Your task to perform on an android device: Go to calendar. Show me events next week Image 0: 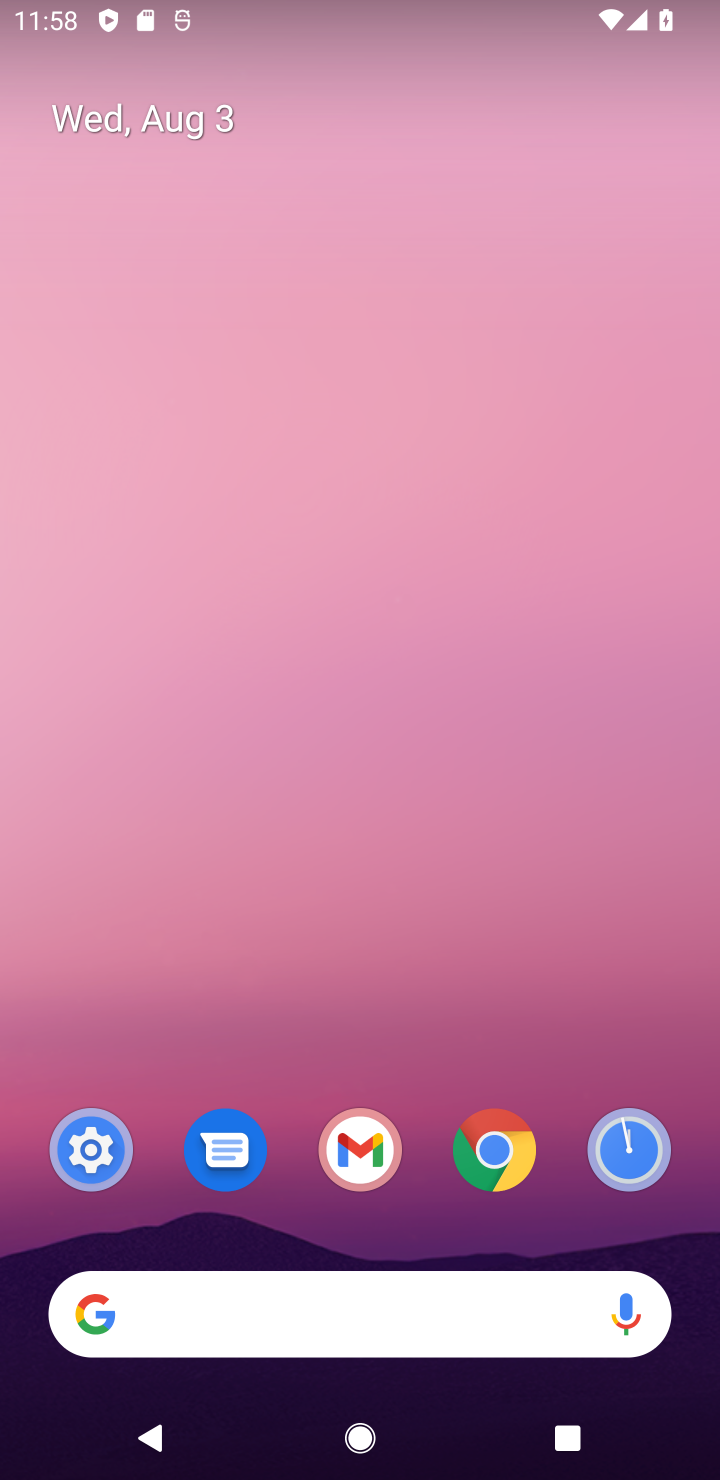
Step 0: press home button
Your task to perform on an android device: Go to calendar. Show me events next week Image 1: 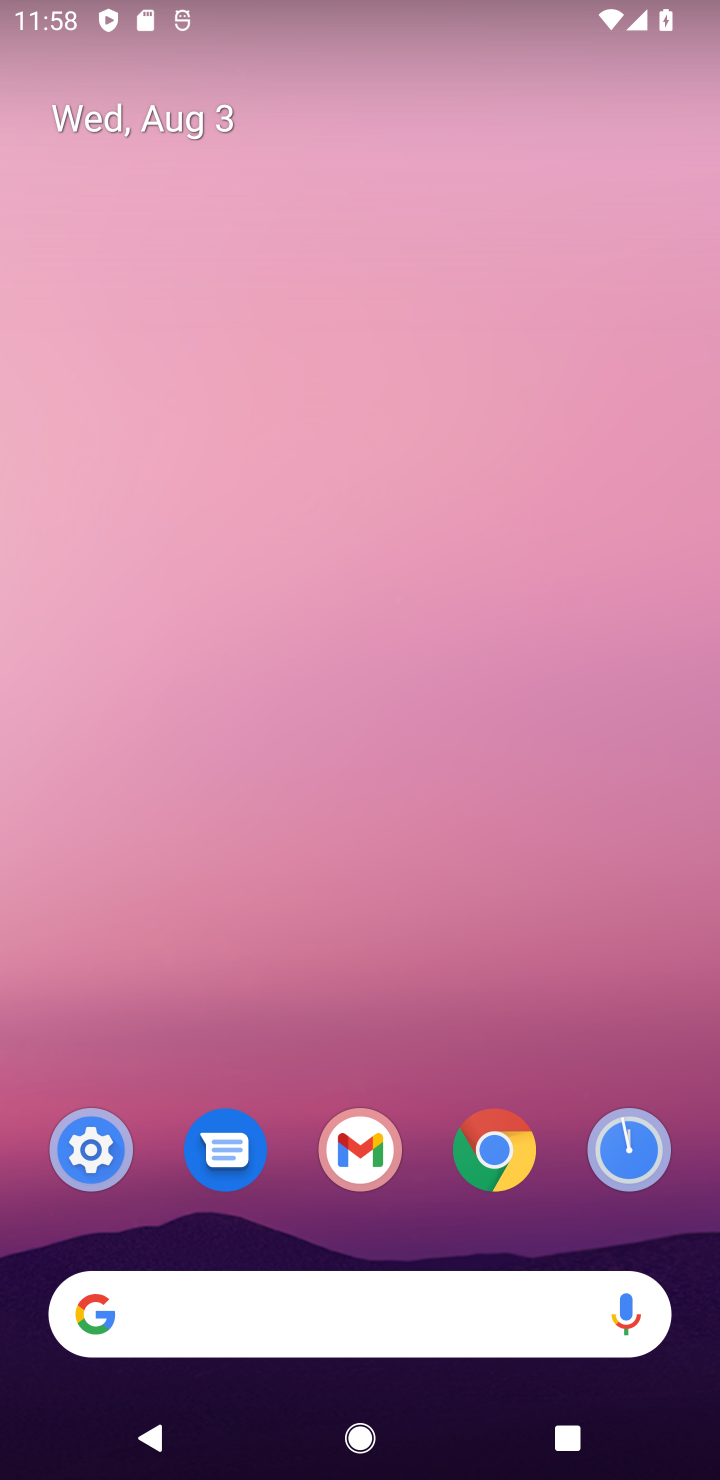
Step 1: drag from (433, 988) to (427, 291)
Your task to perform on an android device: Go to calendar. Show me events next week Image 2: 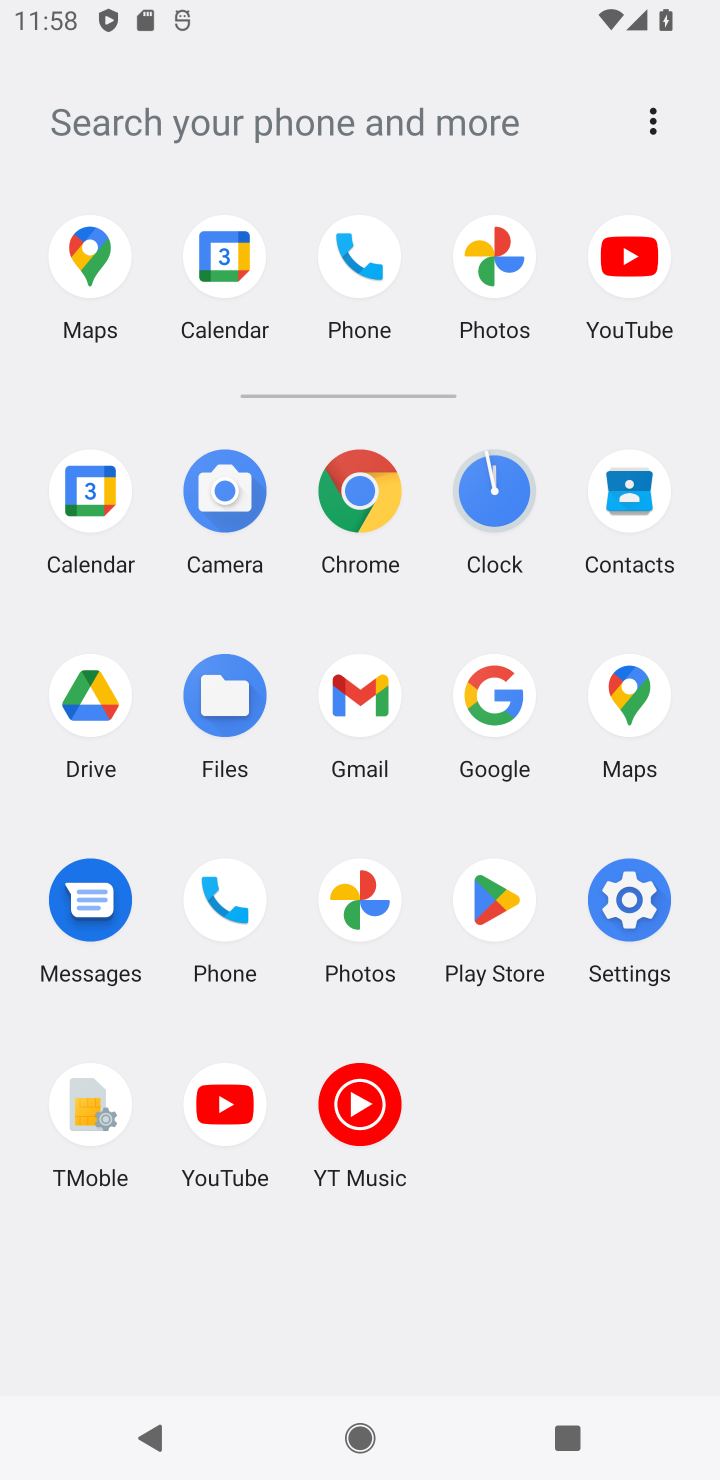
Step 2: click (94, 494)
Your task to perform on an android device: Go to calendar. Show me events next week Image 3: 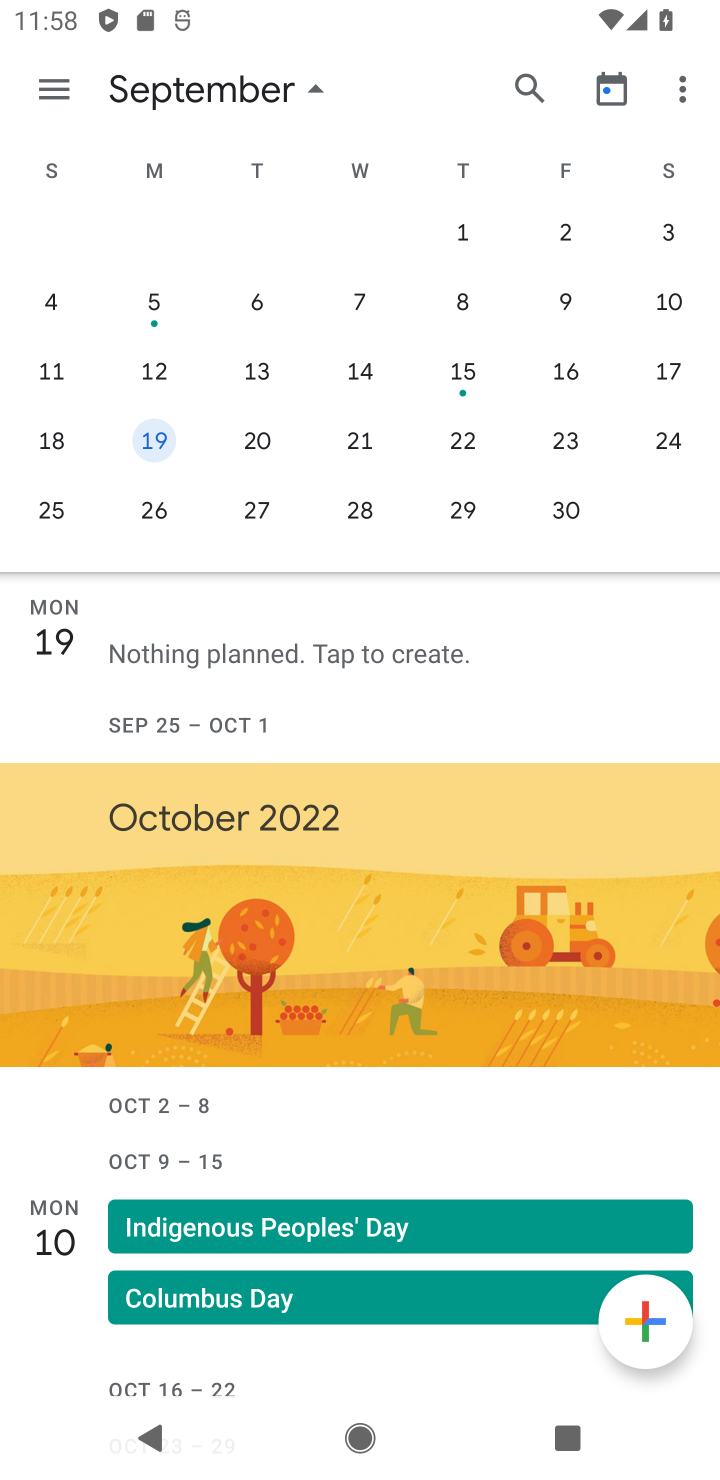
Step 3: drag from (371, 836) to (368, 222)
Your task to perform on an android device: Go to calendar. Show me events next week Image 4: 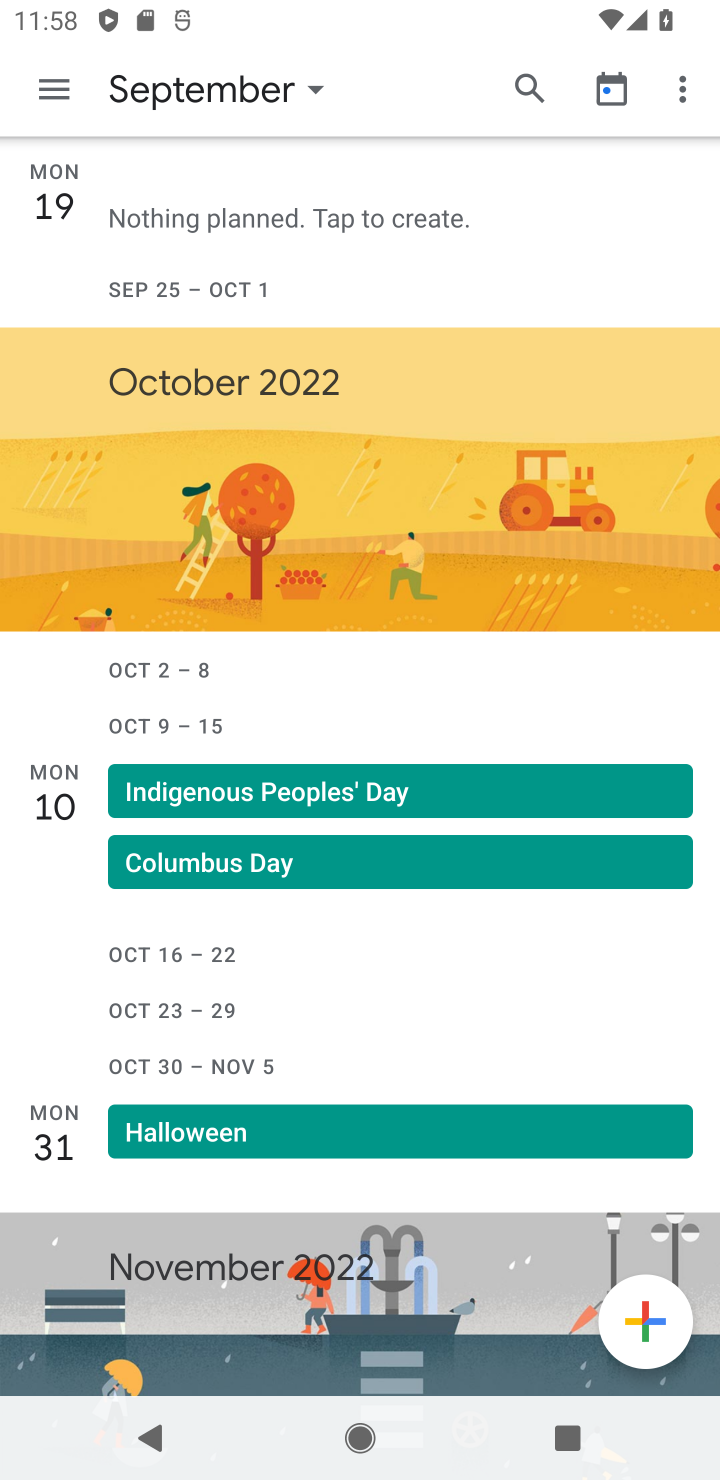
Step 4: drag from (370, 237) to (359, 638)
Your task to perform on an android device: Go to calendar. Show me events next week Image 5: 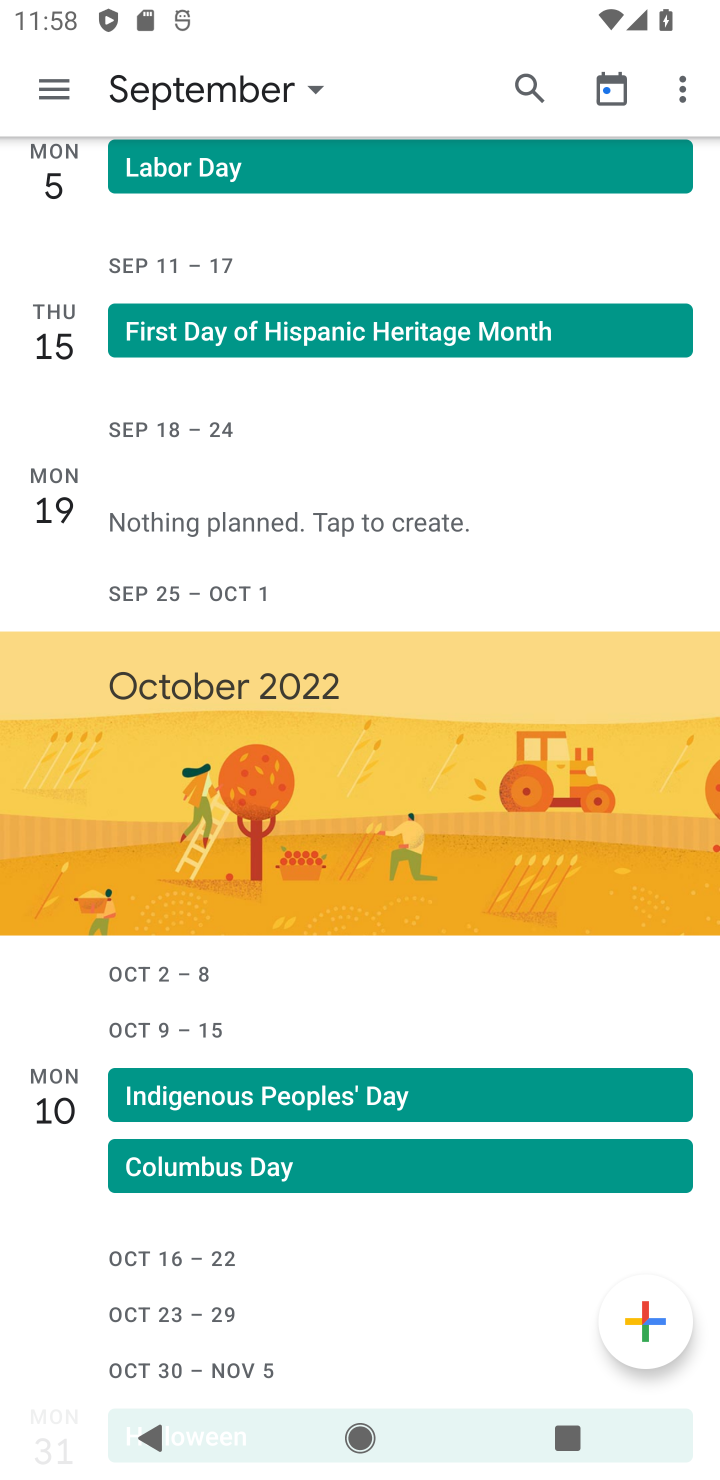
Step 5: drag from (367, 216) to (374, 714)
Your task to perform on an android device: Go to calendar. Show me events next week Image 6: 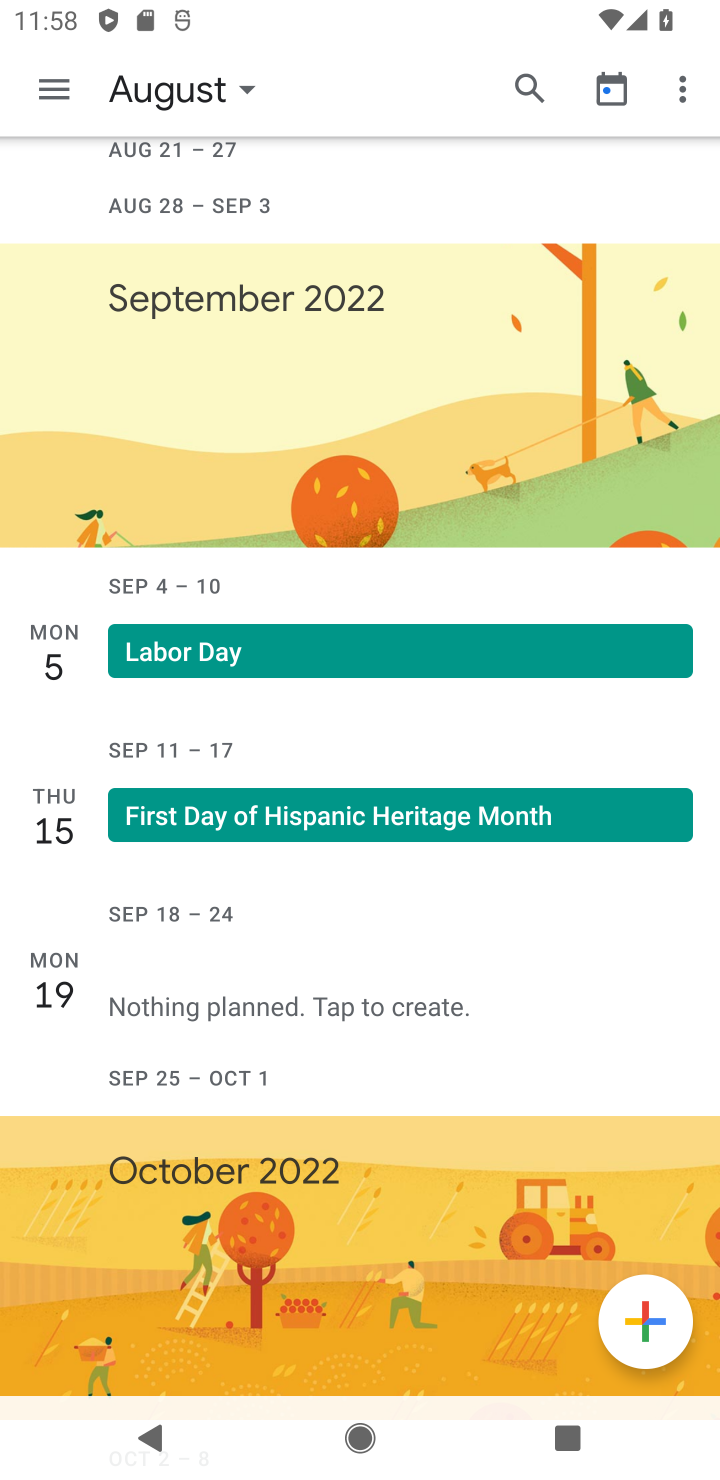
Step 6: click (252, 83)
Your task to perform on an android device: Go to calendar. Show me events next week Image 7: 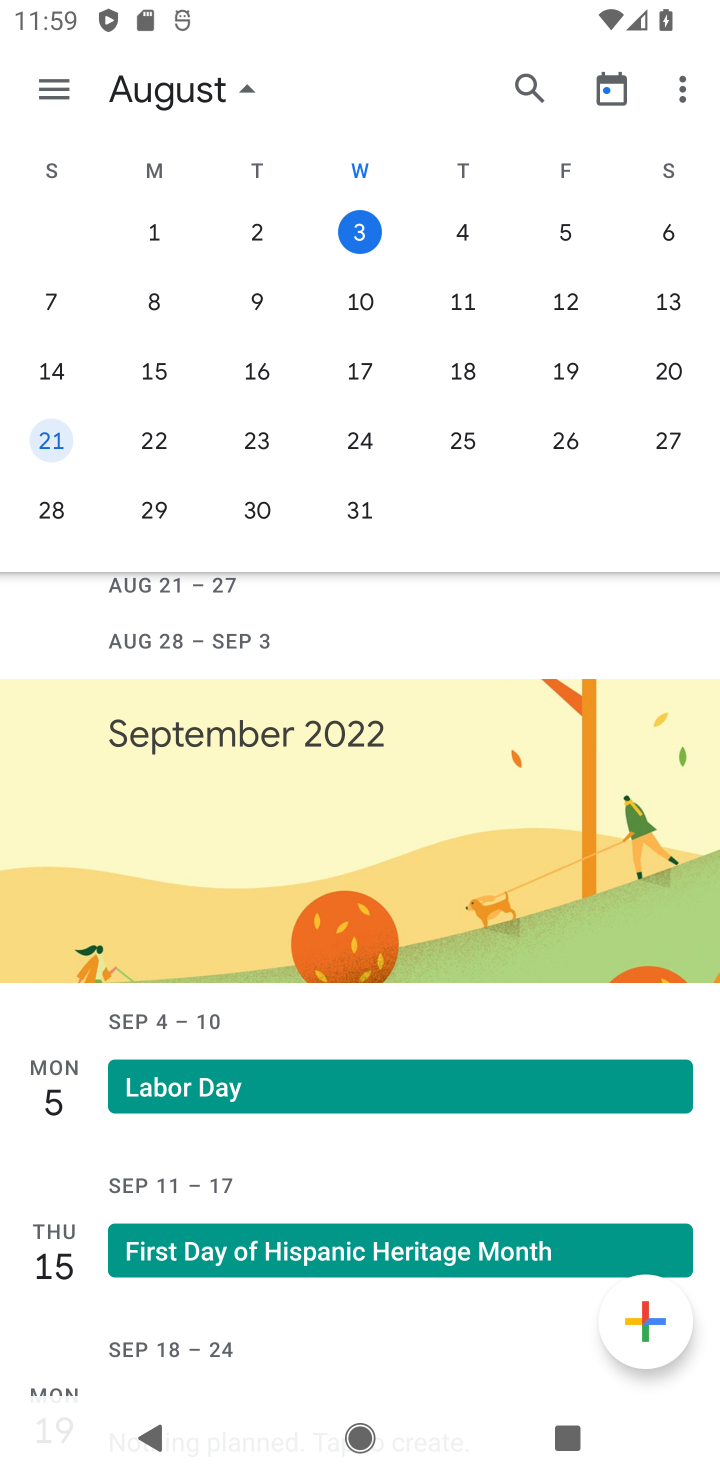
Step 7: click (157, 299)
Your task to perform on an android device: Go to calendar. Show me events next week Image 8: 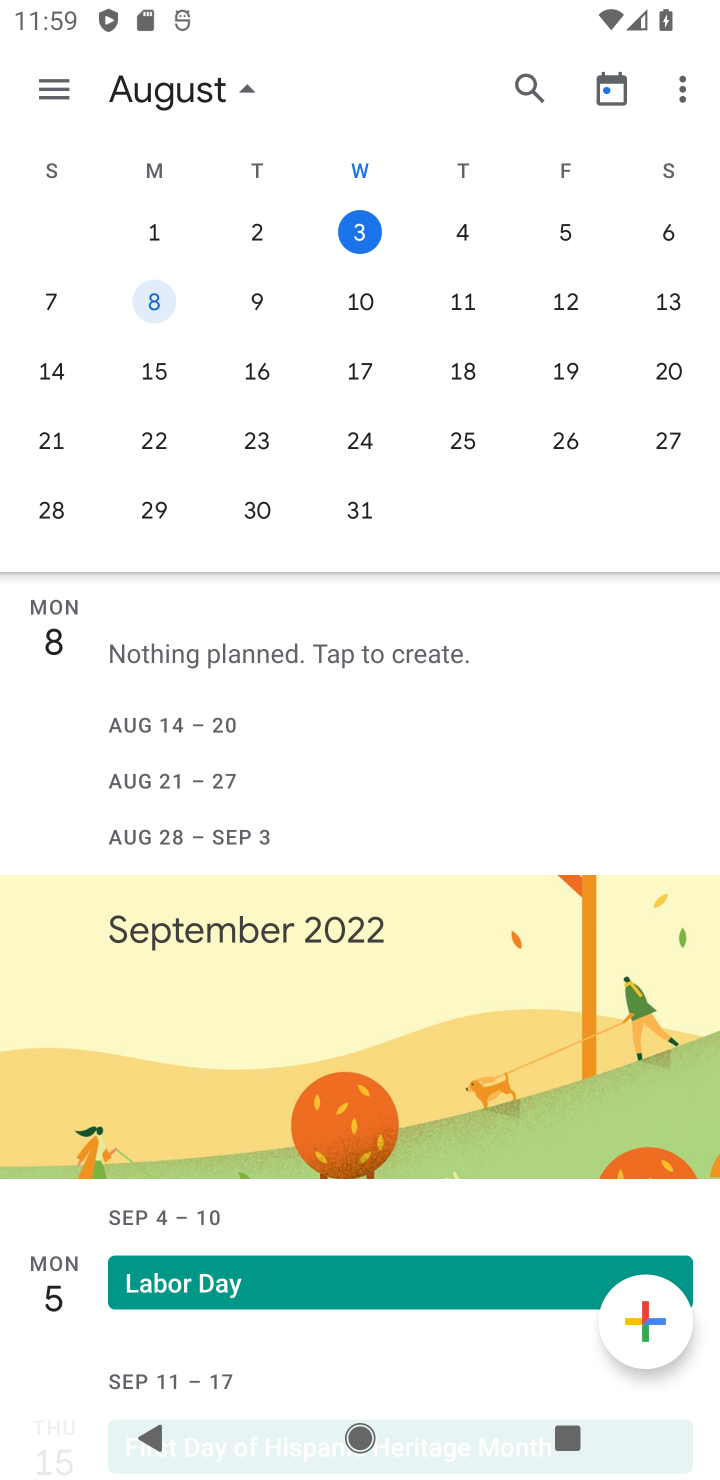
Step 8: task complete